Your task to perform on an android device: open chrome privacy settings Image 0: 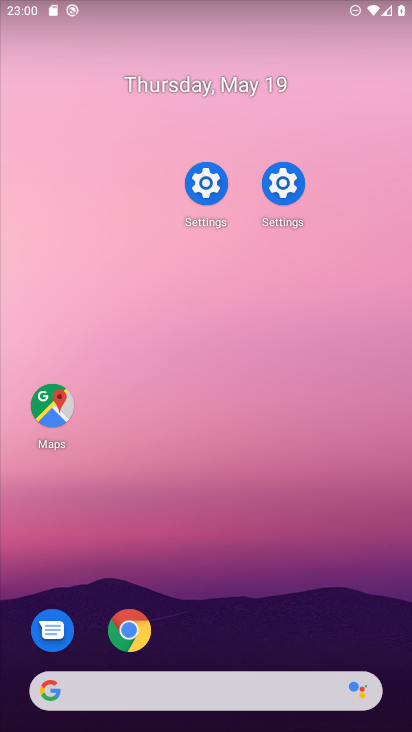
Step 0: drag from (241, 483) to (171, 139)
Your task to perform on an android device: open chrome privacy settings Image 1: 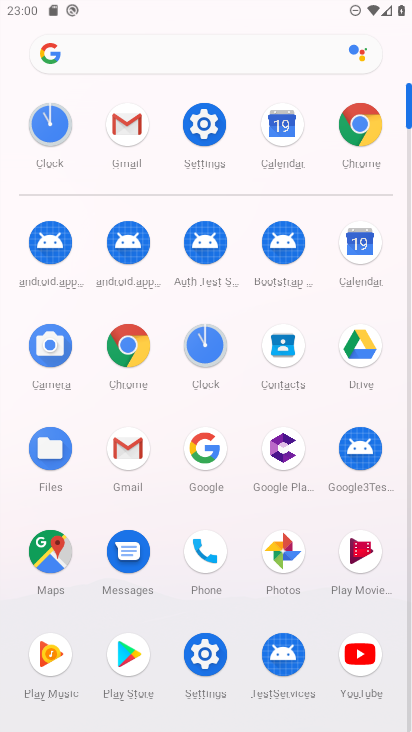
Step 1: click (192, 139)
Your task to perform on an android device: open chrome privacy settings Image 2: 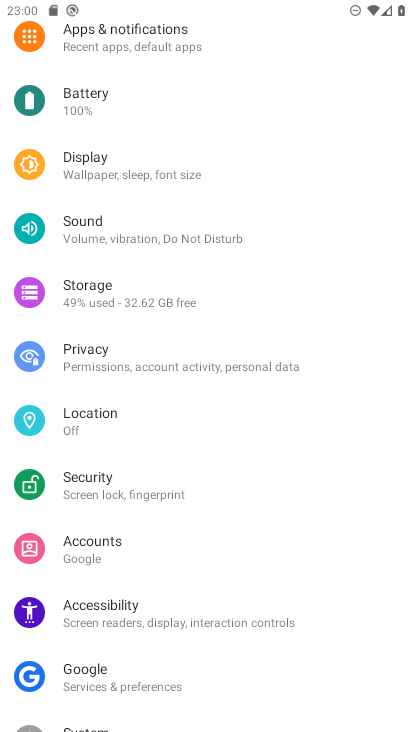
Step 2: press back button
Your task to perform on an android device: open chrome privacy settings Image 3: 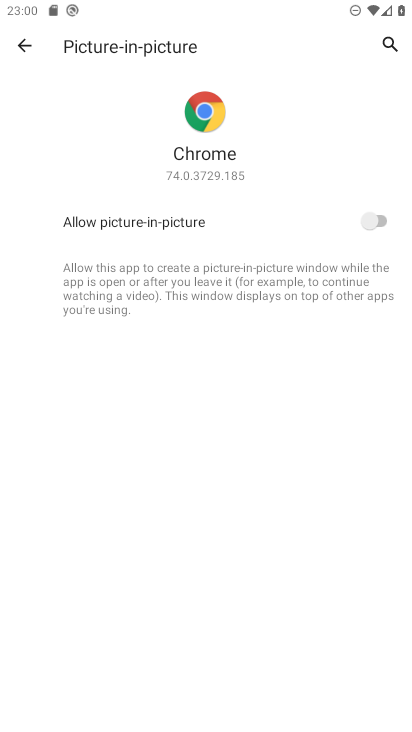
Step 3: press home button
Your task to perform on an android device: open chrome privacy settings Image 4: 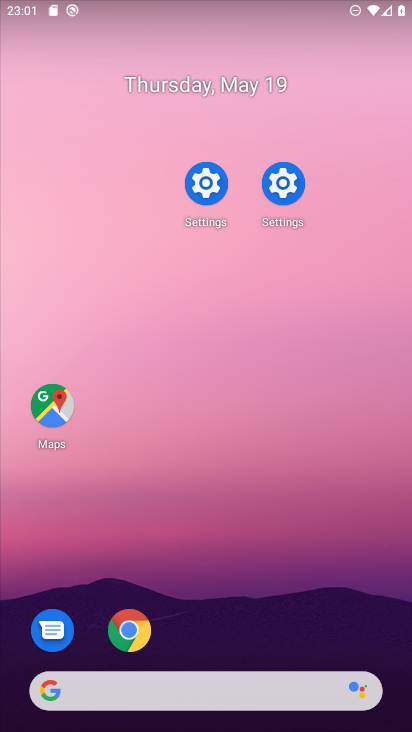
Step 4: drag from (265, 554) to (225, 9)
Your task to perform on an android device: open chrome privacy settings Image 5: 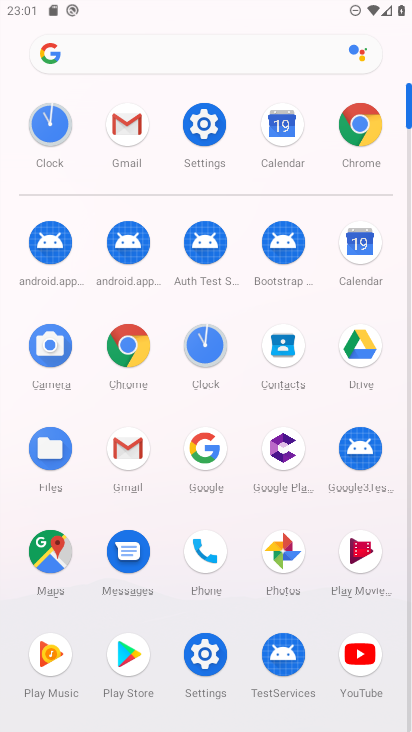
Step 5: click (355, 130)
Your task to perform on an android device: open chrome privacy settings Image 6: 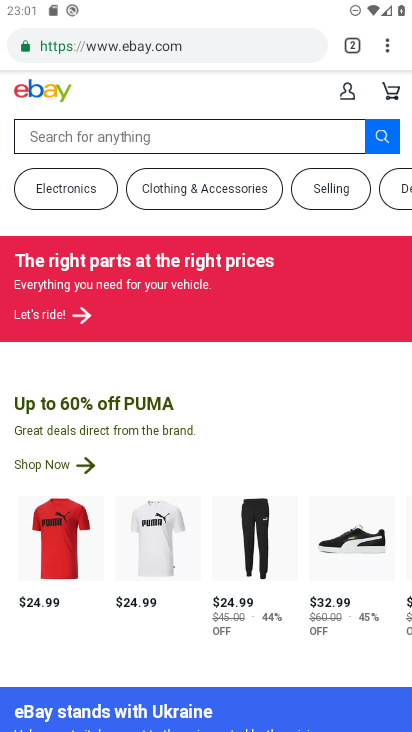
Step 6: drag from (390, 47) to (226, 545)
Your task to perform on an android device: open chrome privacy settings Image 7: 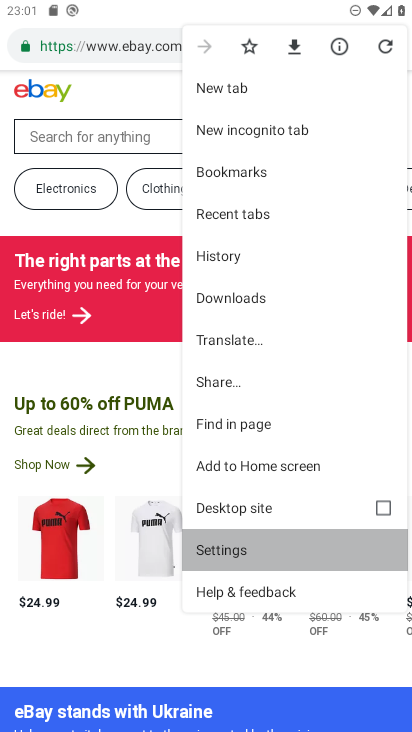
Step 7: click (226, 545)
Your task to perform on an android device: open chrome privacy settings Image 8: 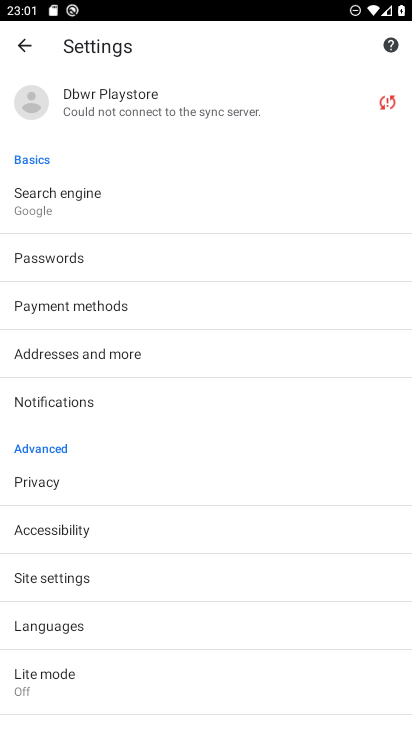
Step 8: click (40, 488)
Your task to perform on an android device: open chrome privacy settings Image 9: 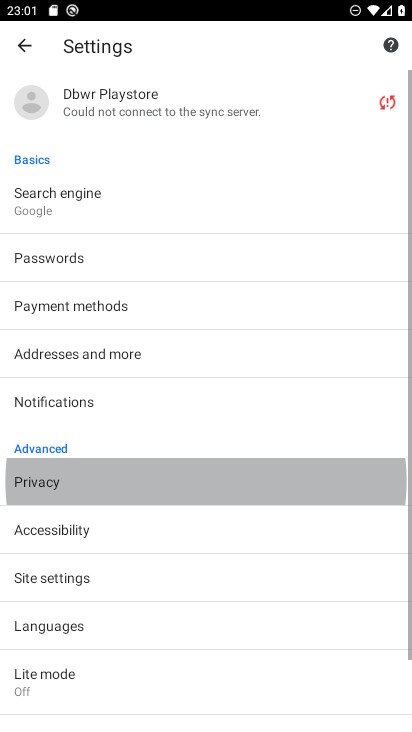
Step 9: click (41, 485)
Your task to perform on an android device: open chrome privacy settings Image 10: 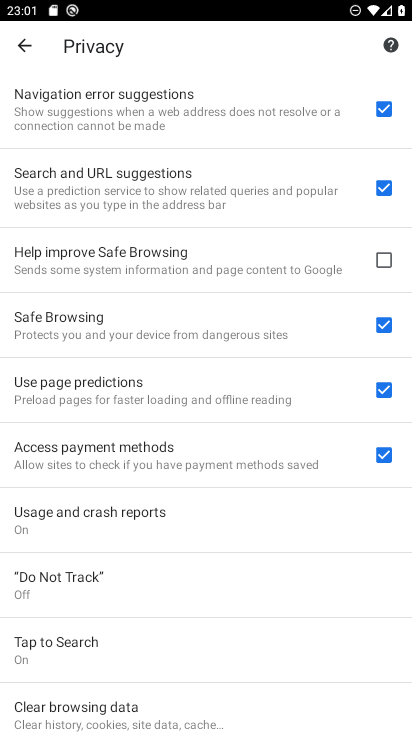
Step 10: task complete